Your task to perform on an android device: change notification settings in the gmail app Image 0: 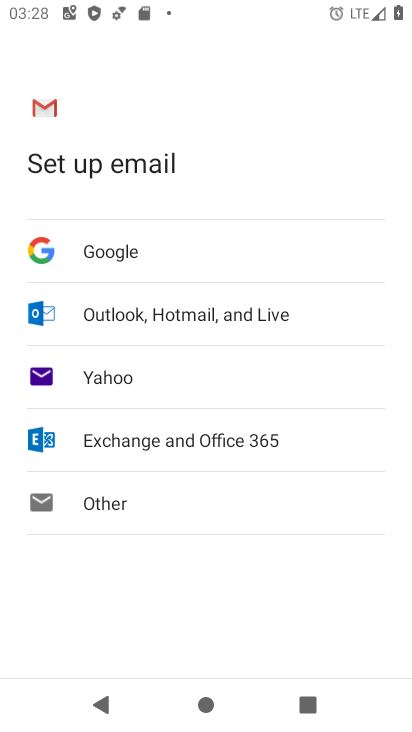
Step 0: press home button
Your task to perform on an android device: change notification settings in the gmail app Image 1: 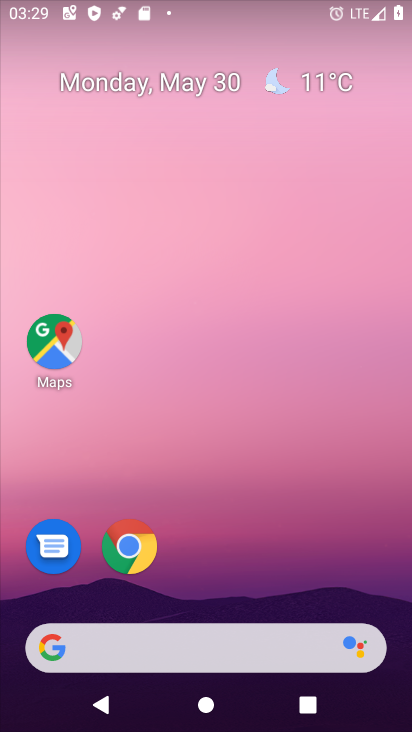
Step 1: drag from (222, 597) to (294, 151)
Your task to perform on an android device: change notification settings in the gmail app Image 2: 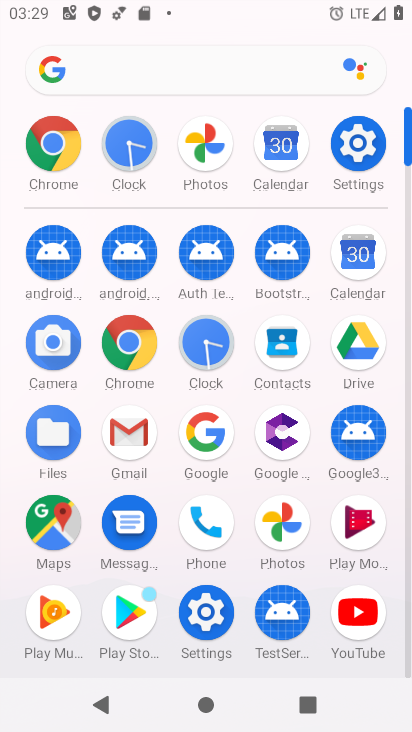
Step 2: click (120, 425)
Your task to perform on an android device: change notification settings in the gmail app Image 3: 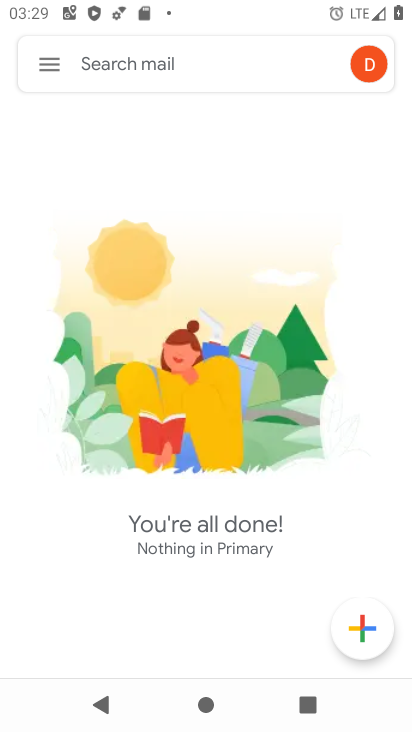
Step 3: click (45, 58)
Your task to perform on an android device: change notification settings in the gmail app Image 4: 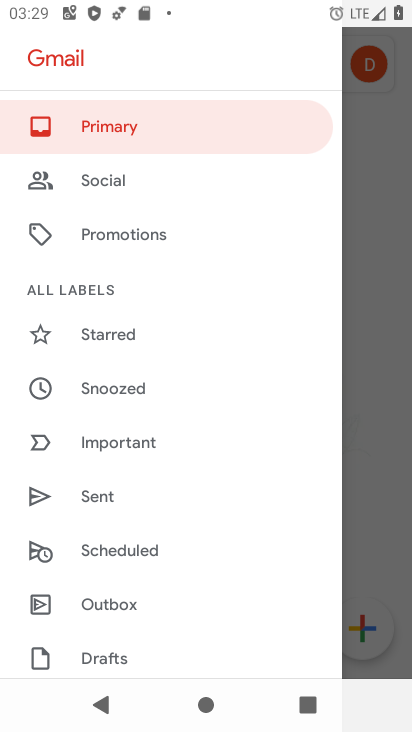
Step 4: drag from (154, 632) to (183, 106)
Your task to perform on an android device: change notification settings in the gmail app Image 5: 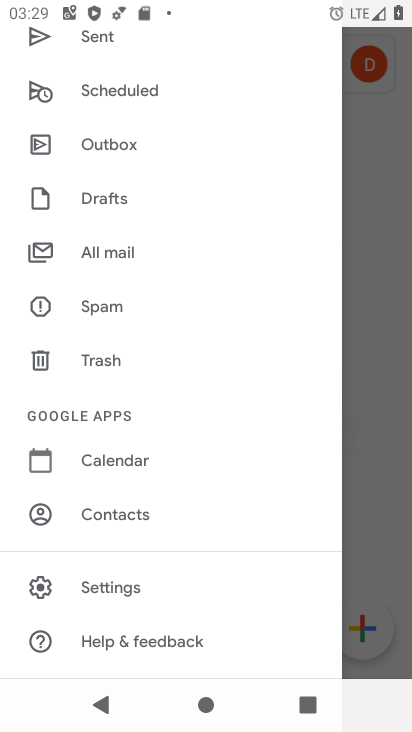
Step 5: click (148, 580)
Your task to perform on an android device: change notification settings in the gmail app Image 6: 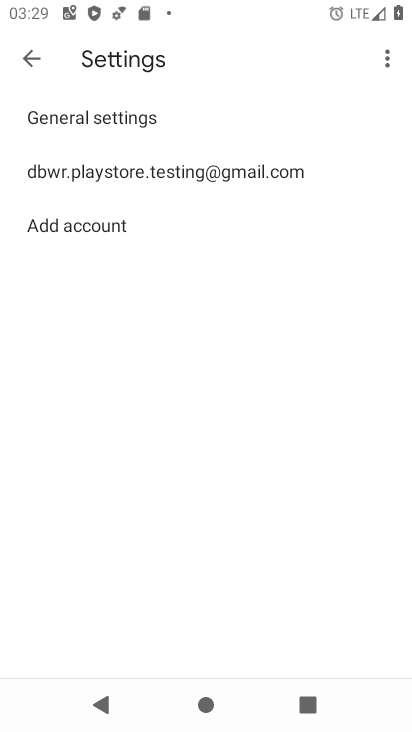
Step 6: click (171, 118)
Your task to perform on an android device: change notification settings in the gmail app Image 7: 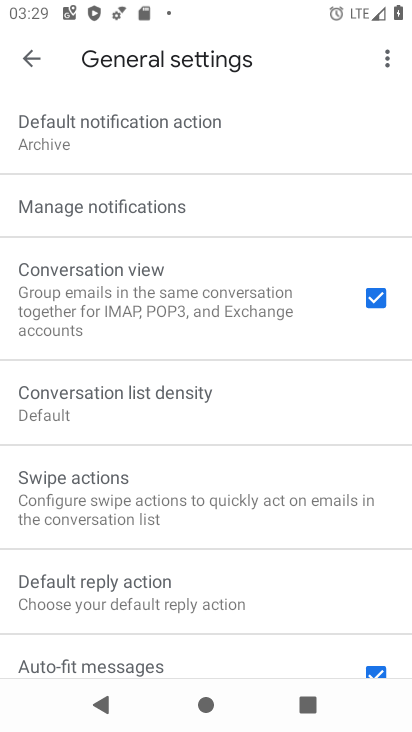
Step 7: click (208, 200)
Your task to perform on an android device: change notification settings in the gmail app Image 8: 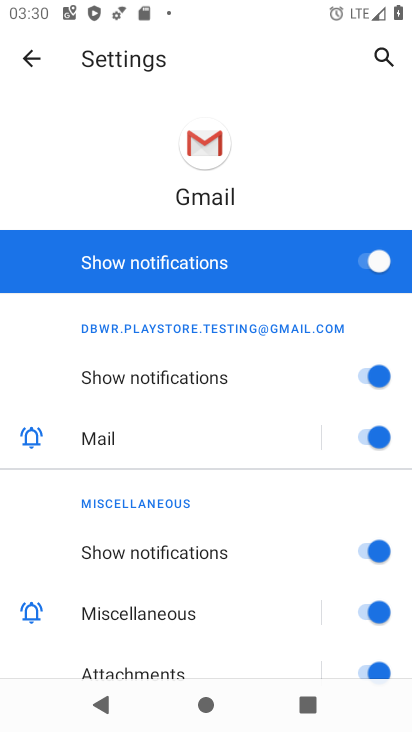
Step 8: click (365, 260)
Your task to perform on an android device: change notification settings in the gmail app Image 9: 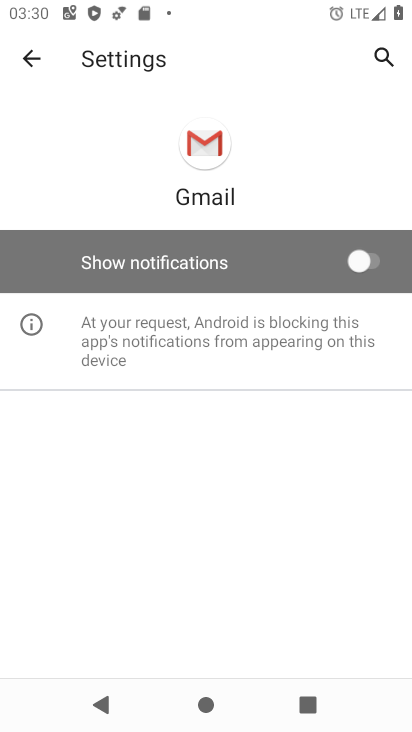
Step 9: task complete